Your task to perform on an android device: empty trash in google photos Image 0: 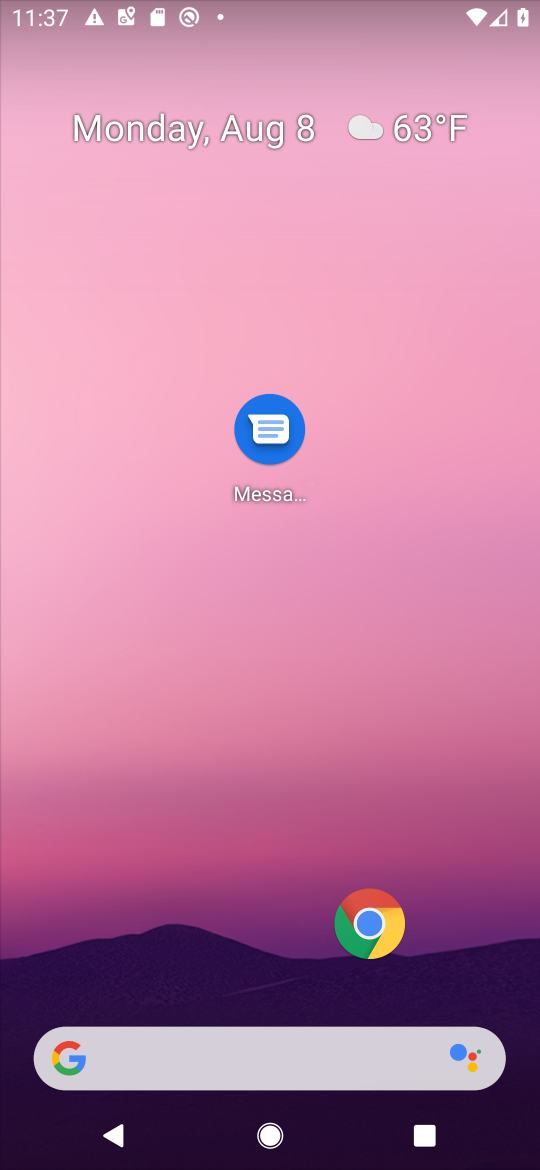
Step 0: drag from (195, 571) to (301, 304)
Your task to perform on an android device: empty trash in google photos Image 1: 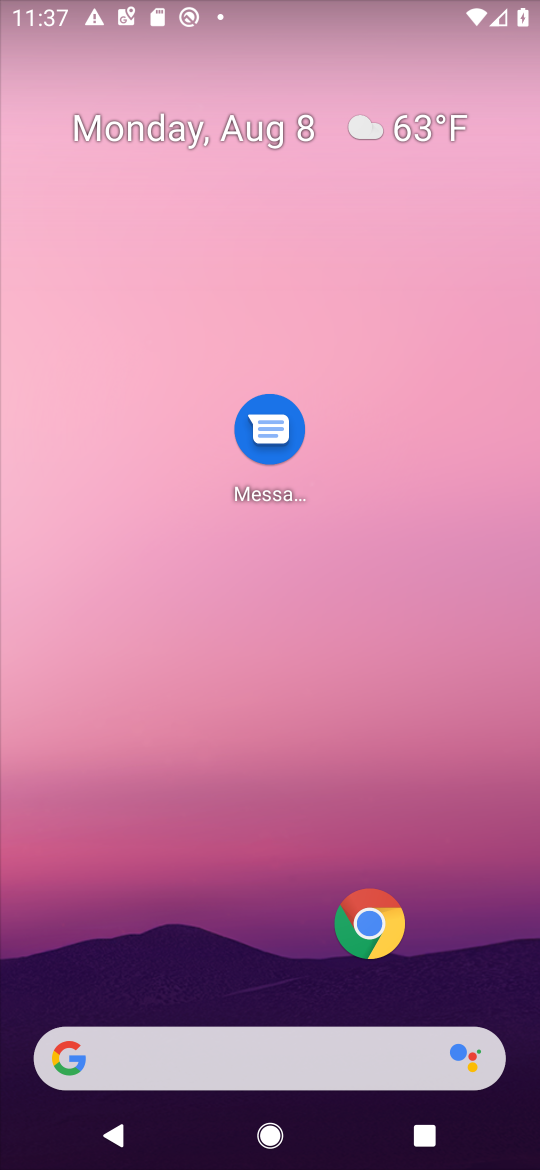
Step 1: drag from (29, 1130) to (120, 334)
Your task to perform on an android device: empty trash in google photos Image 2: 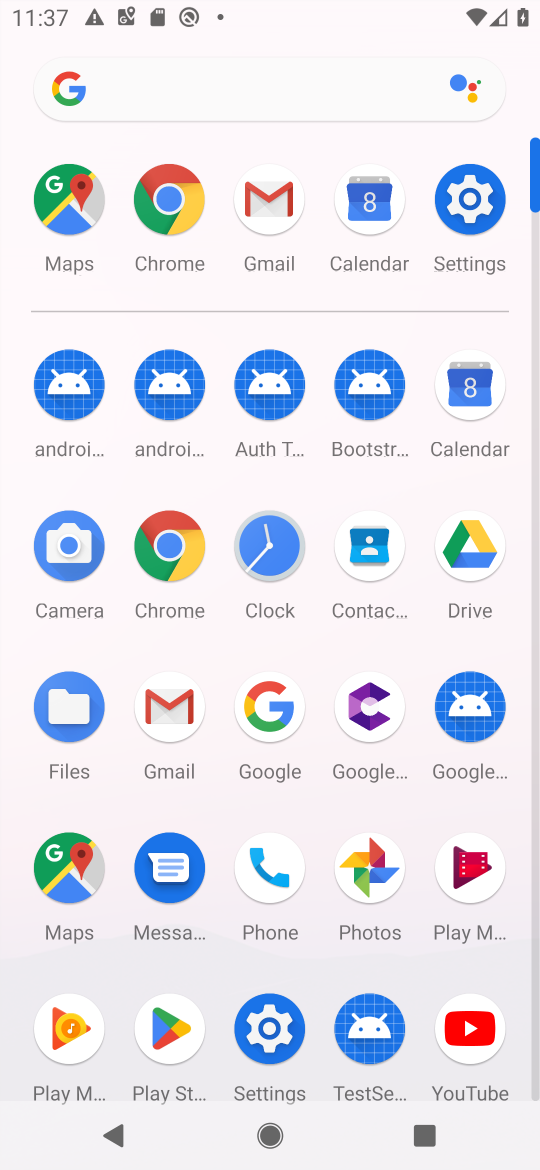
Step 2: click (375, 887)
Your task to perform on an android device: empty trash in google photos Image 3: 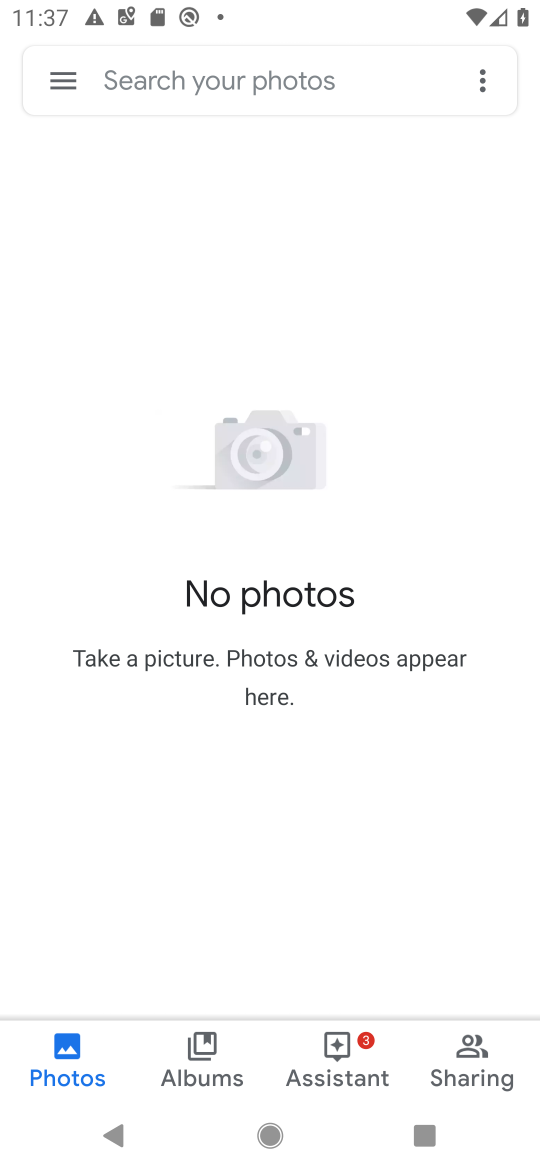
Step 3: click (62, 80)
Your task to perform on an android device: empty trash in google photos Image 4: 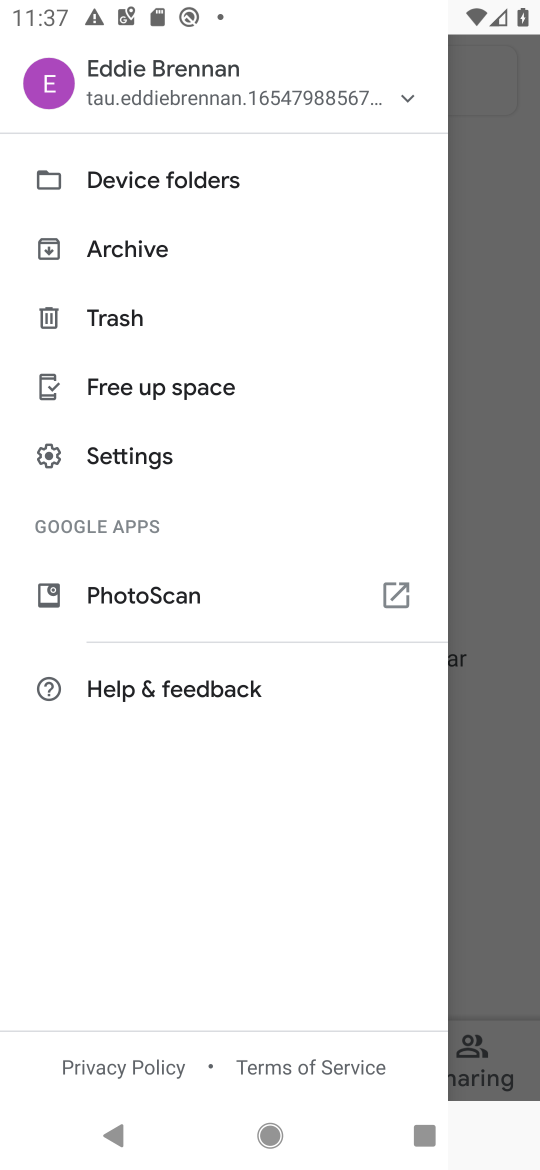
Step 4: click (148, 319)
Your task to perform on an android device: empty trash in google photos Image 5: 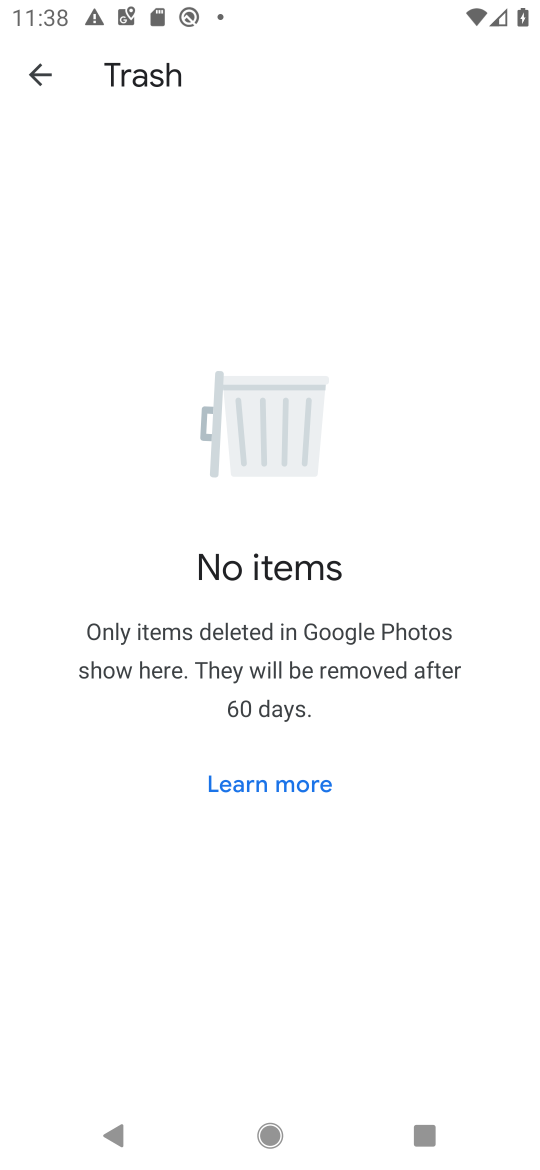
Step 5: task complete